Your task to perform on an android device: visit the assistant section in the google photos Image 0: 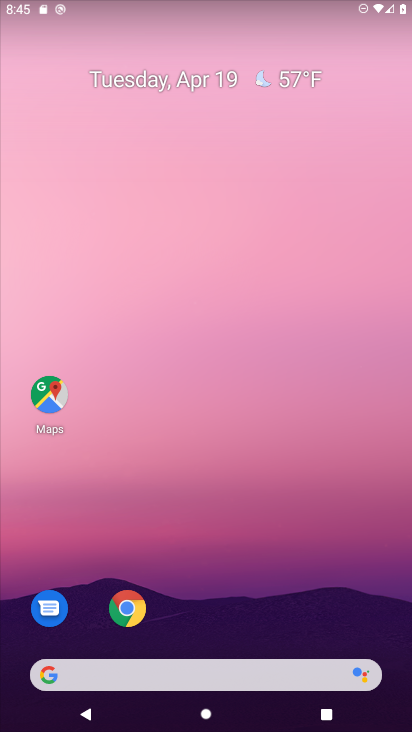
Step 0: drag from (268, 558) to (247, 211)
Your task to perform on an android device: visit the assistant section in the google photos Image 1: 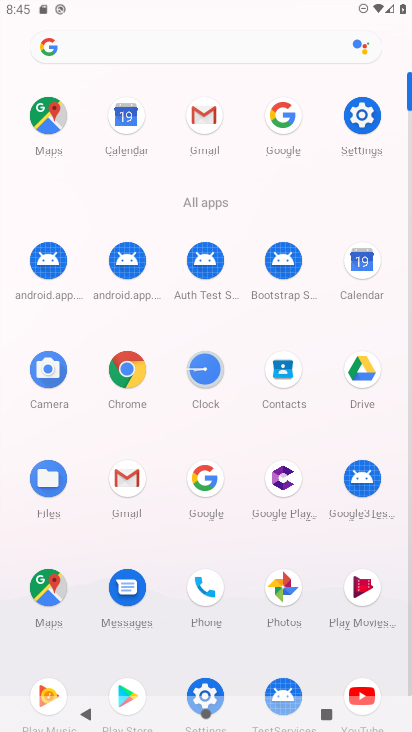
Step 1: click (286, 587)
Your task to perform on an android device: visit the assistant section in the google photos Image 2: 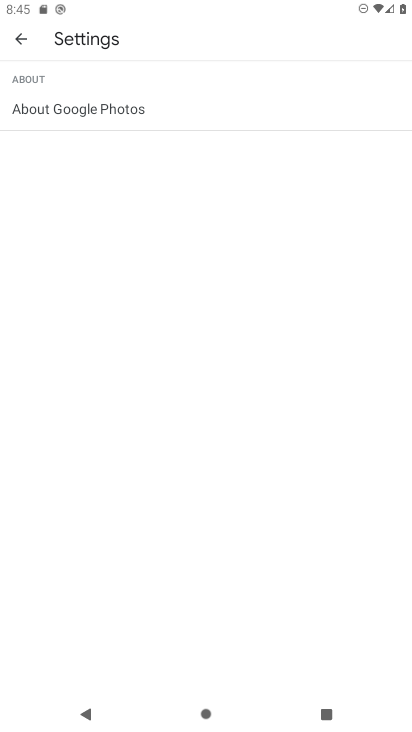
Step 2: press back button
Your task to perform on an android device: visit the assistant section in the google photos Image 3: 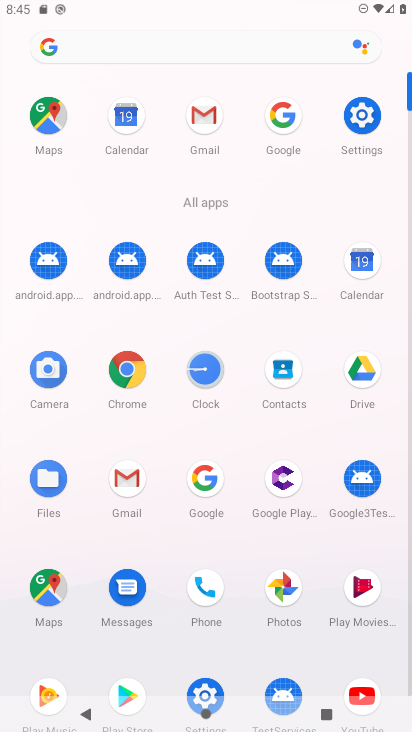
Step 3: click (286, 587)
Your task to perform on an android device: visit the assistant section in the google photos Image 4: 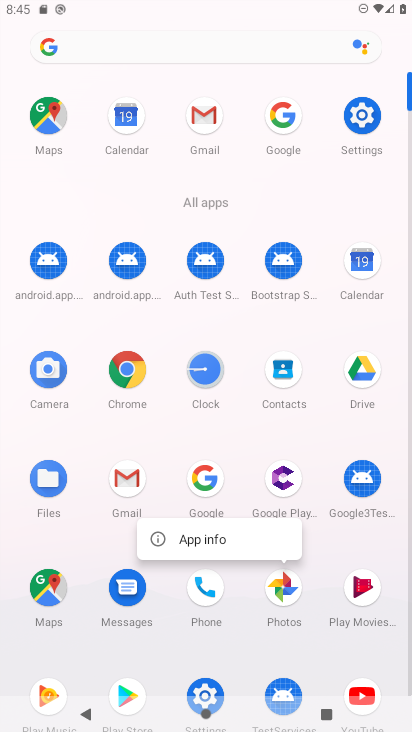
Step 4: click (286, 587)
Your task to perform on an android device: visit the assistant section in the google photos Image 5: 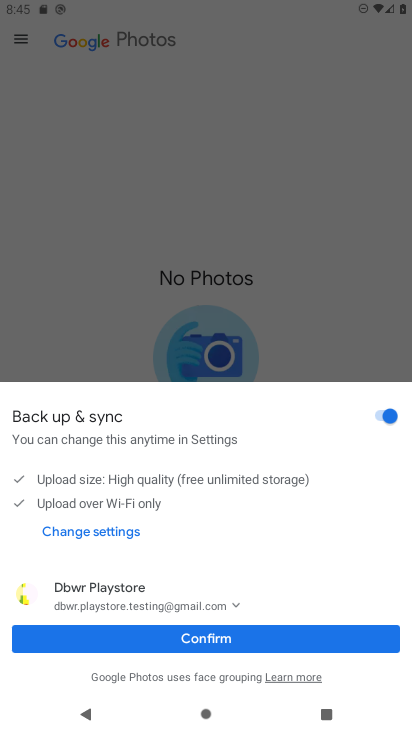
Step 5: click (187, 640)
Your task to perform on an android device: visit the assistant section in the google photos Image 6: 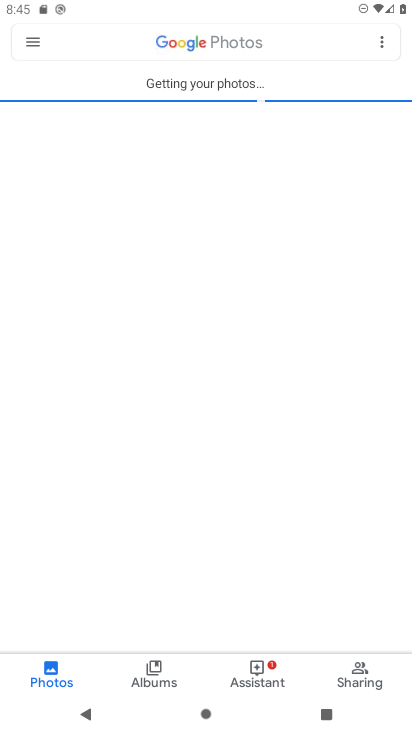
Step 6: click (267, 677)
Your task to perform on an android device: visit the assistant section in the google photos Image 7: 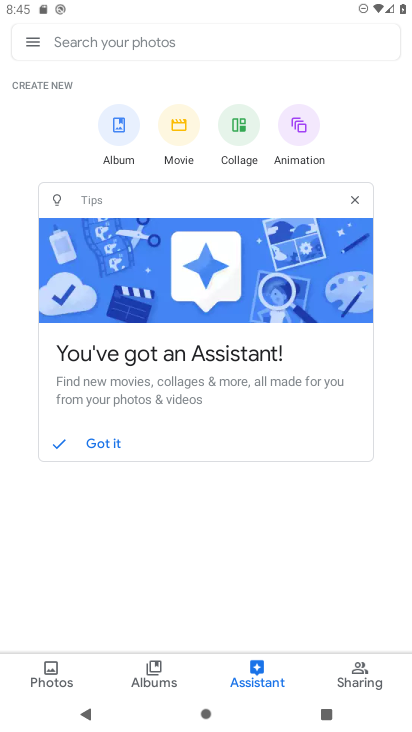
Step 7: task complete